Your task to perform on an android device: turn off notifications settings in the gmail app Image 0: 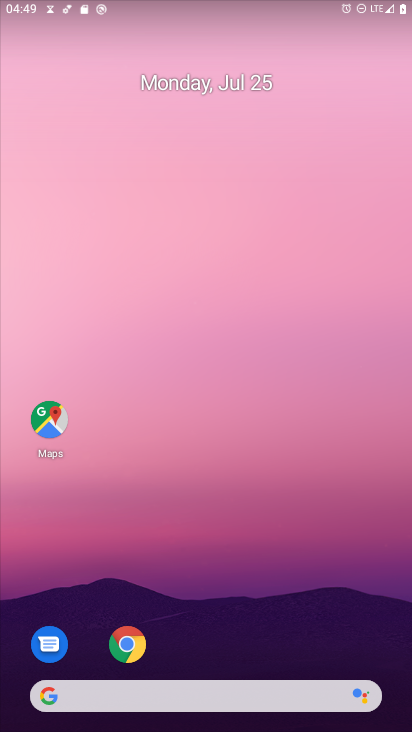
Step 0: press home button
Your task to perform on an android device: turn off notifications settings in the gmail app Image 1: 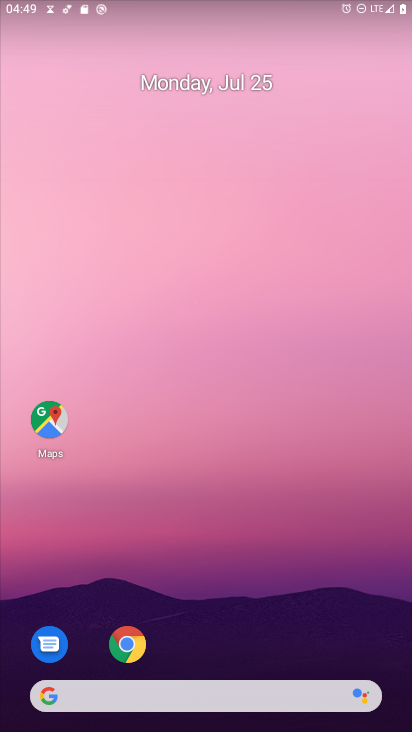
Step 1: click (157, 115)
Your task to perform on an android device: turn off notifications settings in the gmail app Image 2: 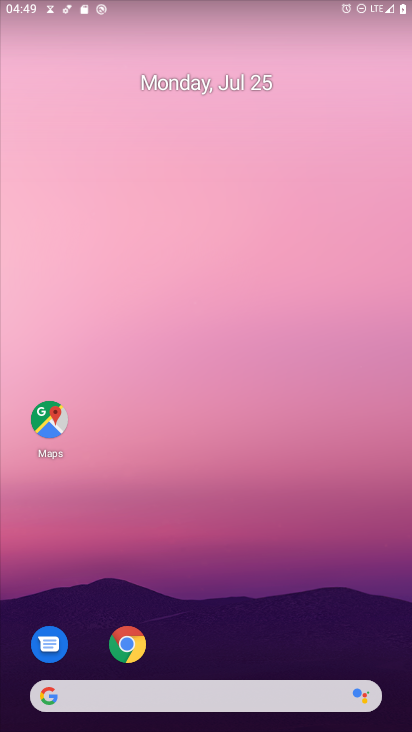
Step 2: drag from (251, 633) to (221, 52)
Your task to perform on an android device: turn off notifications settings in the gmail app Image 3: 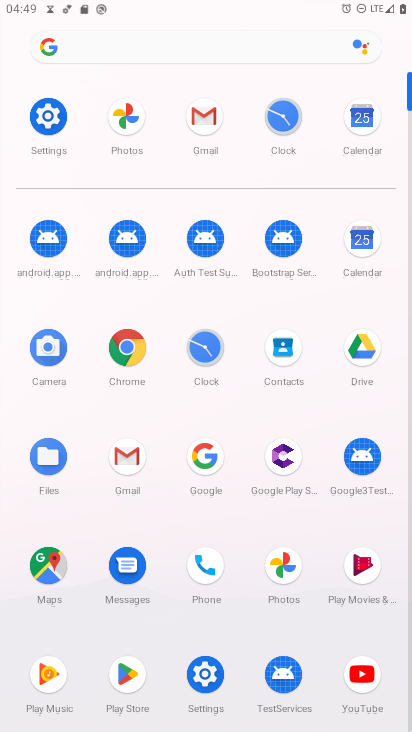
Step 3: click (204, 118)
Your task to perform on an android device: turn off notifications settings in the gmail app Image 4: 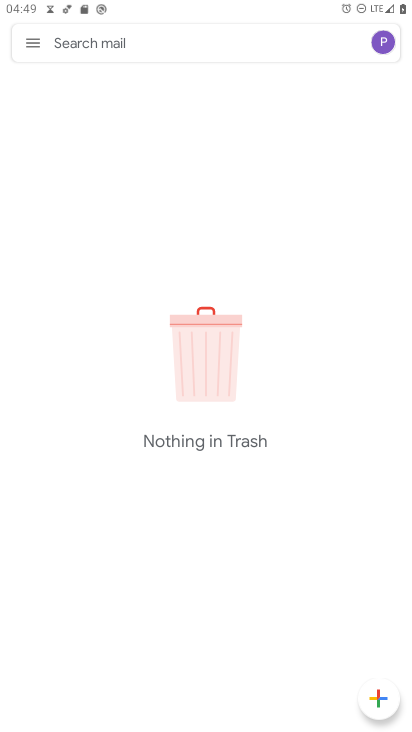
Step 4: click (32, 44)
Your task to perform on an android device: turn off notifications settings in the gmail app Image 5: 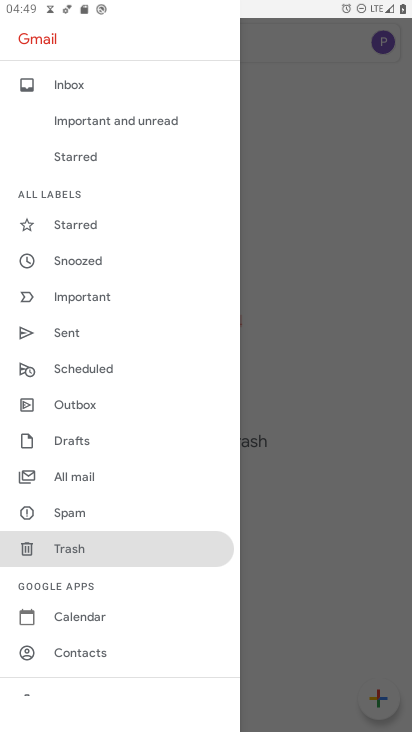
Step 5: drag from (111, 196) to (128, 16)
Your task to perform on an android device: turn off notifications settings in the gmail app Image 6: 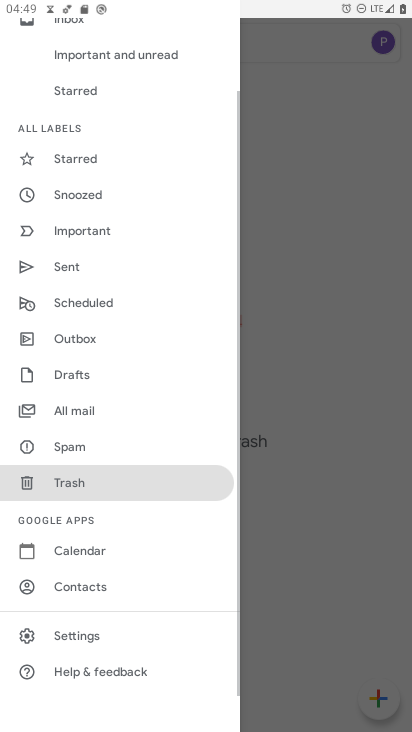
Step 6: click (66, 631)
Your task to perform on an android device: turn off notifications settings in the gmail app Image 7: 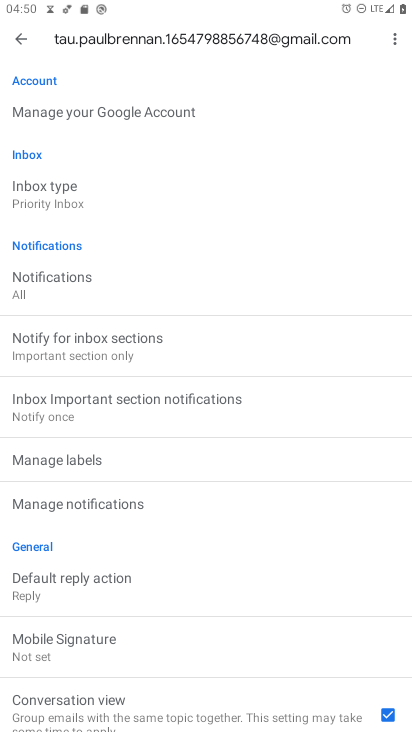
Step 7: click (80, 503)
Your task to perform on an android device: turn off notifications settings in the gmail app Image 8: 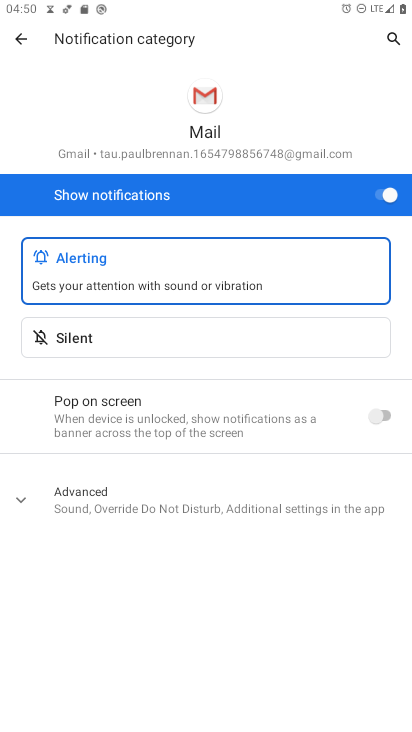
Step 8: click (394, 196)
Your task to perform on an android device: turn off notifications settings in the gmail app Image 9: 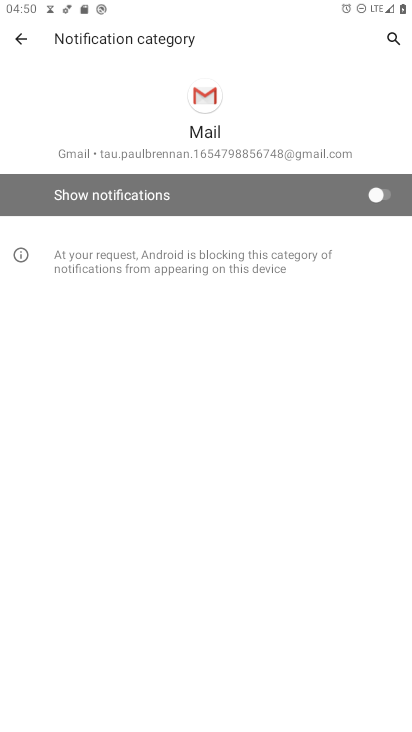
Step 9: task complete